Your task to perform on an android device: uninstall "Adobe Acrobat Reader" Image 0: 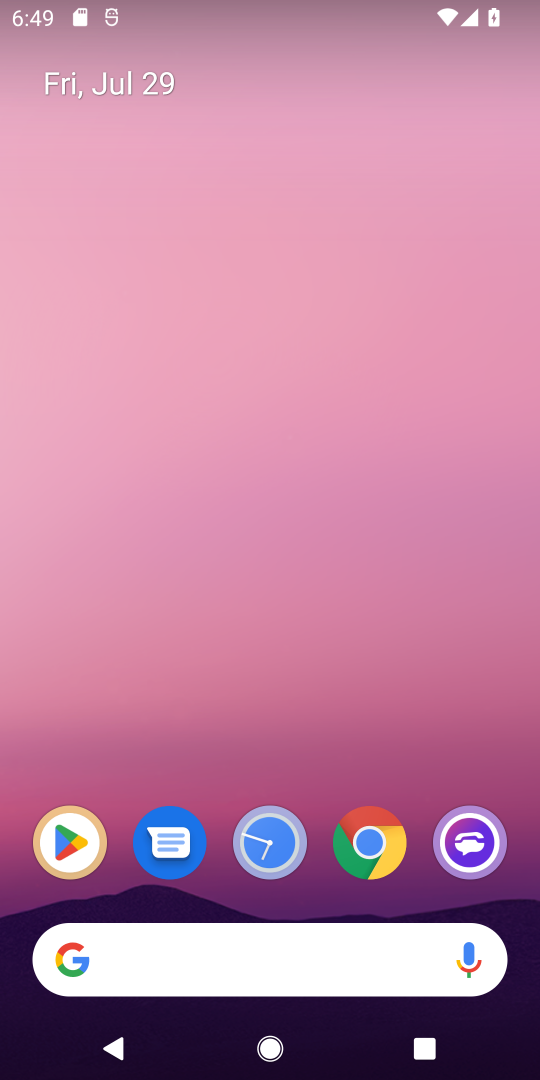
Step 0: drag from (332, 625) to (332, 43)
Your task to perform on an android device: uninstall "Adobe Acrobat Reader" Image 1: 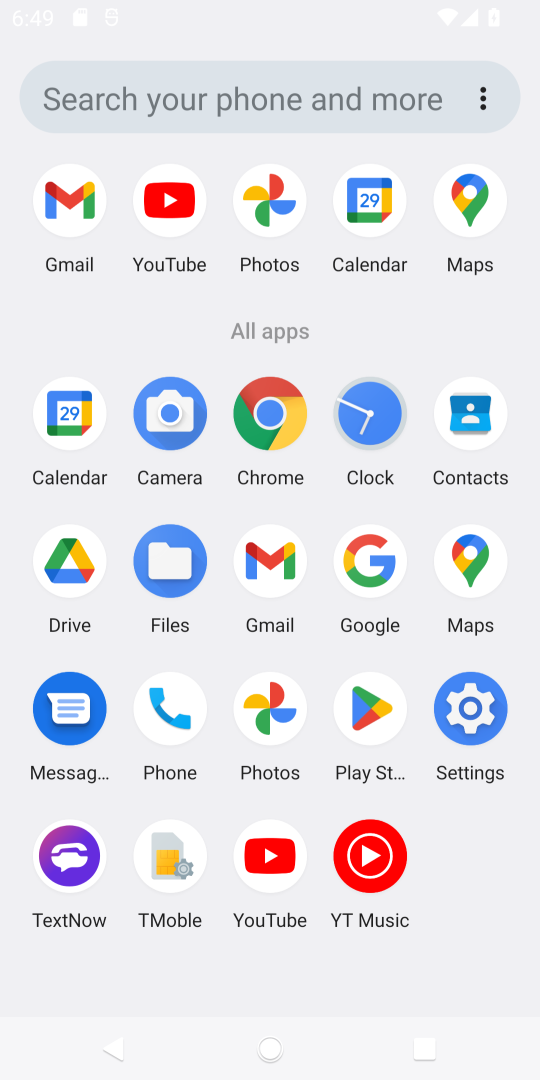
Step 1: drag from (324, 653) to (307, 91)
Your task to perform on an android device: uninstall "Adobe Acrobat Reader" Image 2: 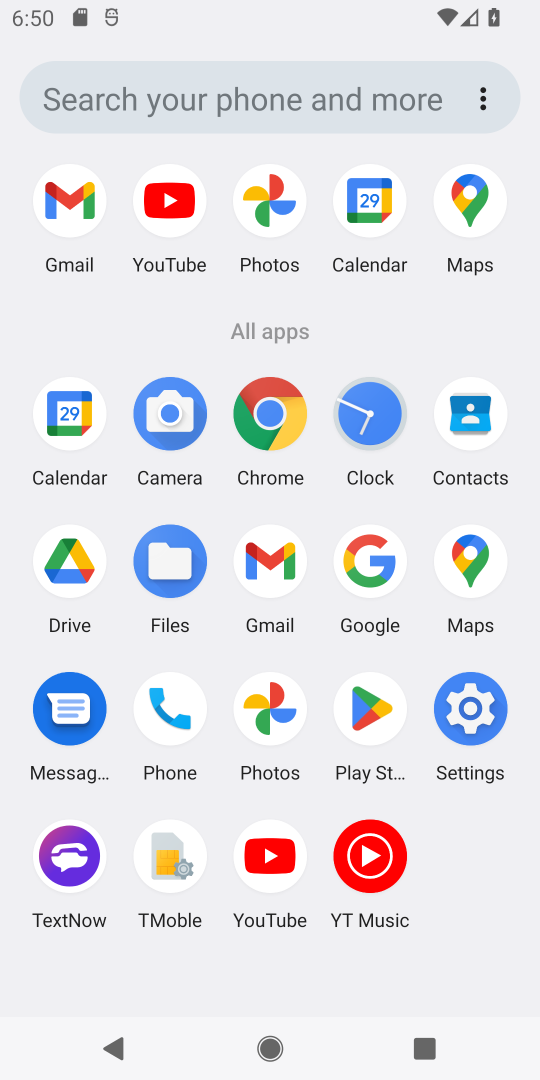
Step 2: click (373, 716)
Your task to perform on an android device: uninstall "Adobe Acrobat Reader" Image 3: 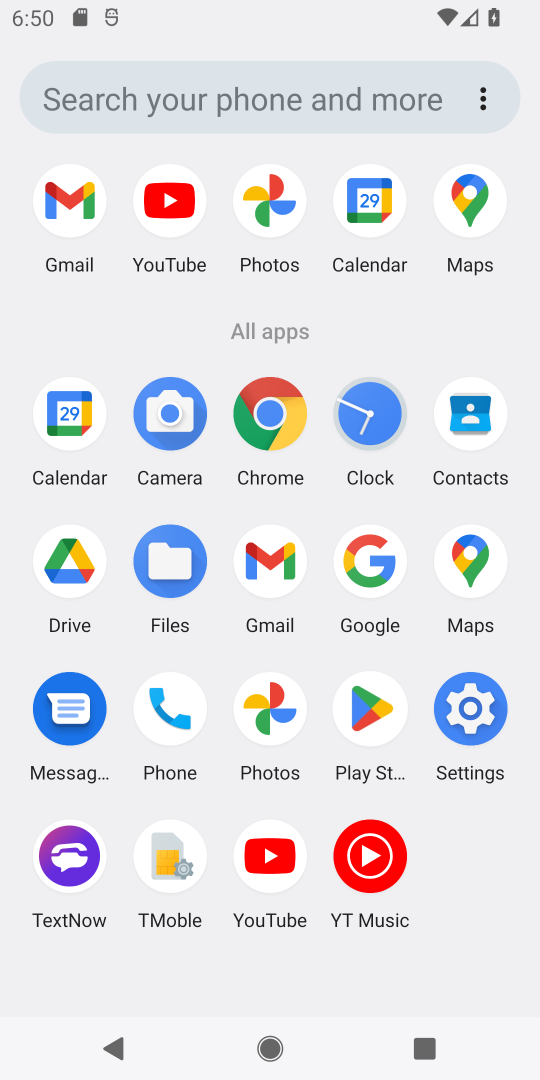
Step 3: click (373, 716)
Your task to perform on an android device: uninstall "Adobe Acrobat Reader" Image 4: 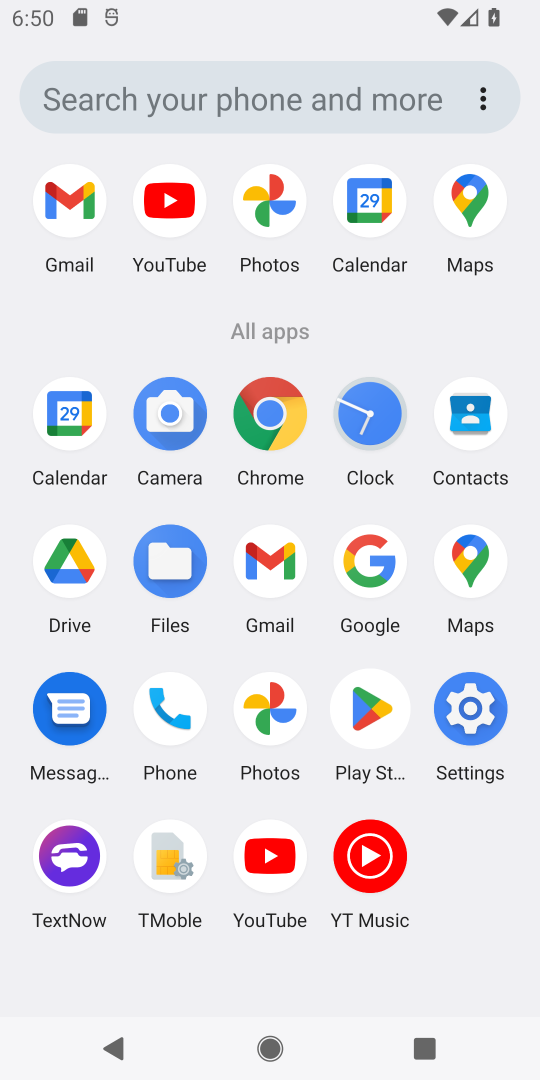
Step 4: click (373, 716)
Your task to perform on an android device: uninstall "Adobe Acrobat Reader" Image 5: 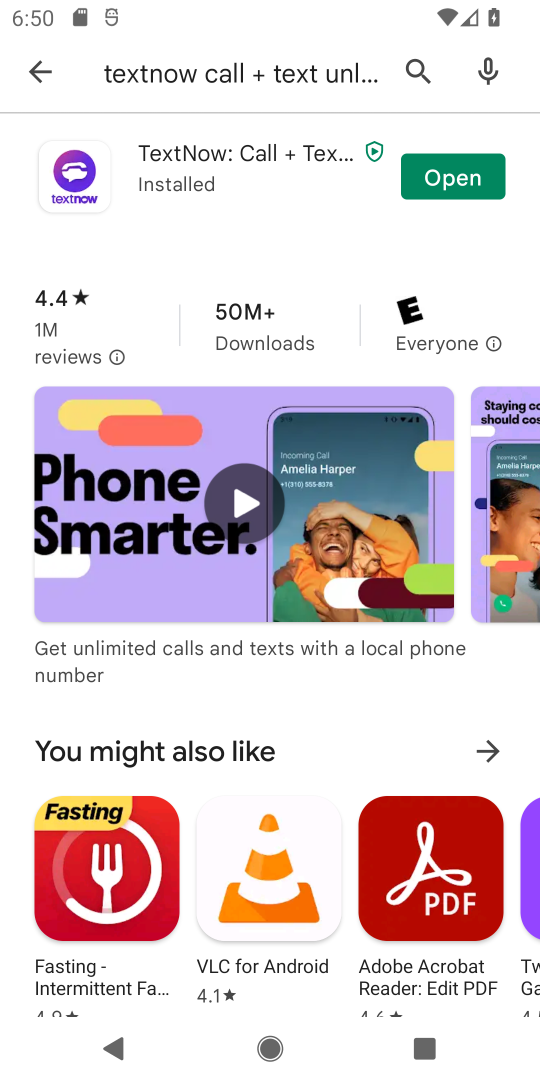
Step 5: click (50, 58)
Your task to perform on an android device: uninstall "Adobe Acrobat Reader" Image 6: 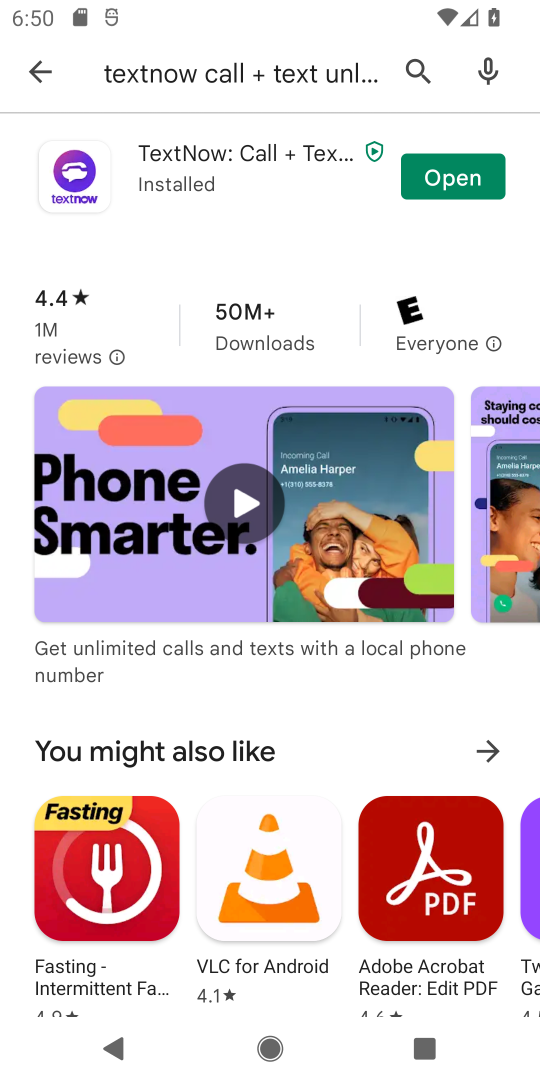
Step 6: click (45, 69)
Your task to perform on an android device: uninstall "Adobe Acrobat Reader" Image 7: 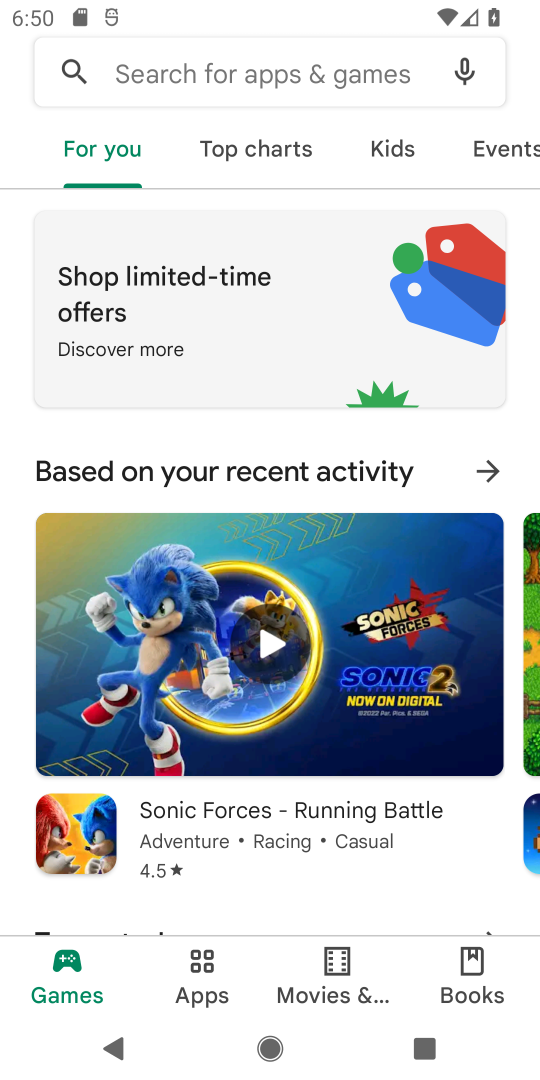
Step 7: click (143, 69)
Your task to perform on an android device: uninstall "Adobe Acrobat Reader" Image 8: 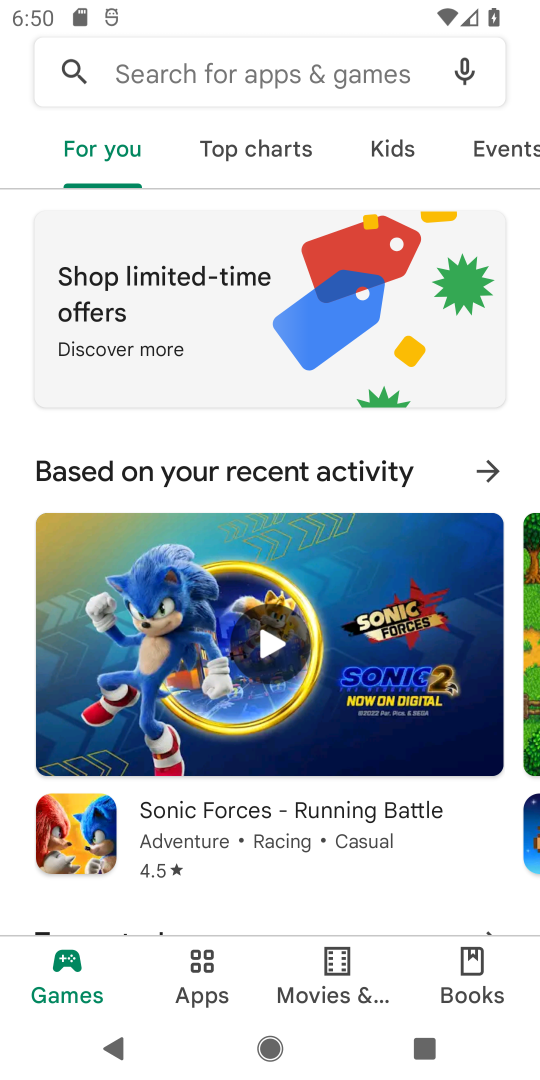
Step 8: click (145, 69)
Your task to perform on an android device: uninstall "Adobe Acrobat Reader" Image 9: 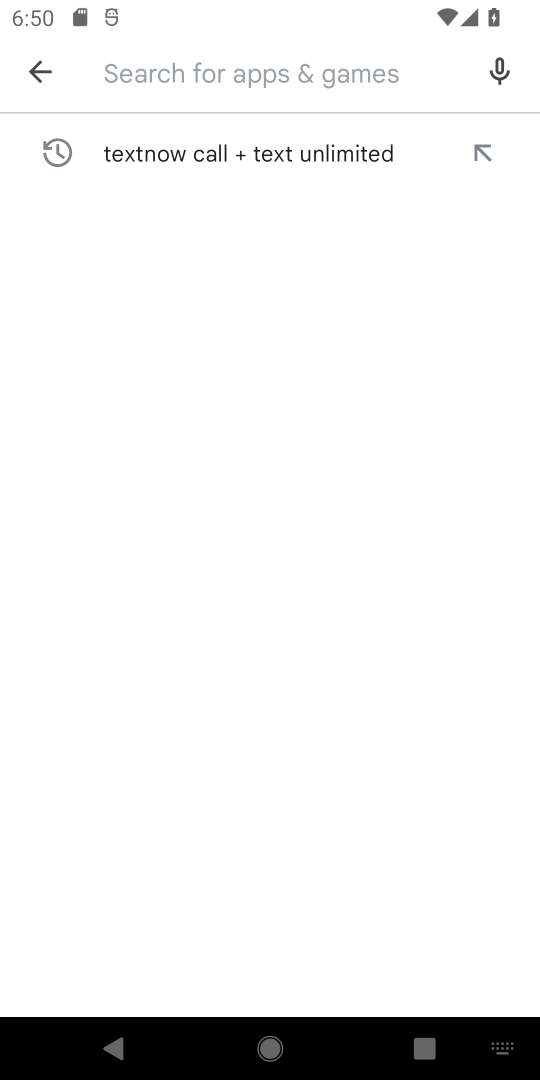
Step 9: type "Adobe Acrobat Reader"
Your task to perform on an android device: uninstall "Adobe Acrobat Reader" Image 10: 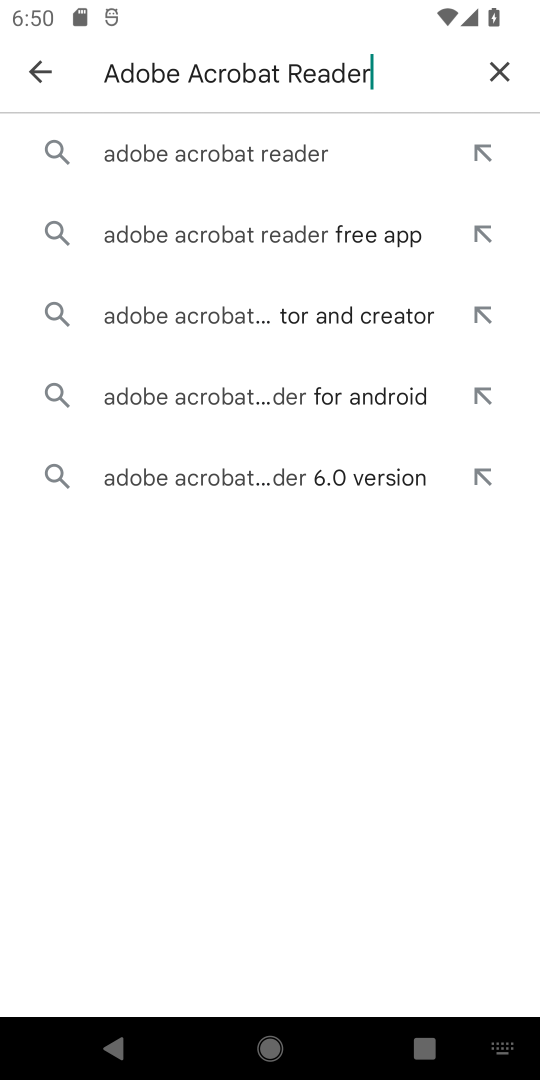
Step 10: click (246, 154)
Your task to perform on an android device: uninstall "Adobe Acrobat Reader" Image 11: 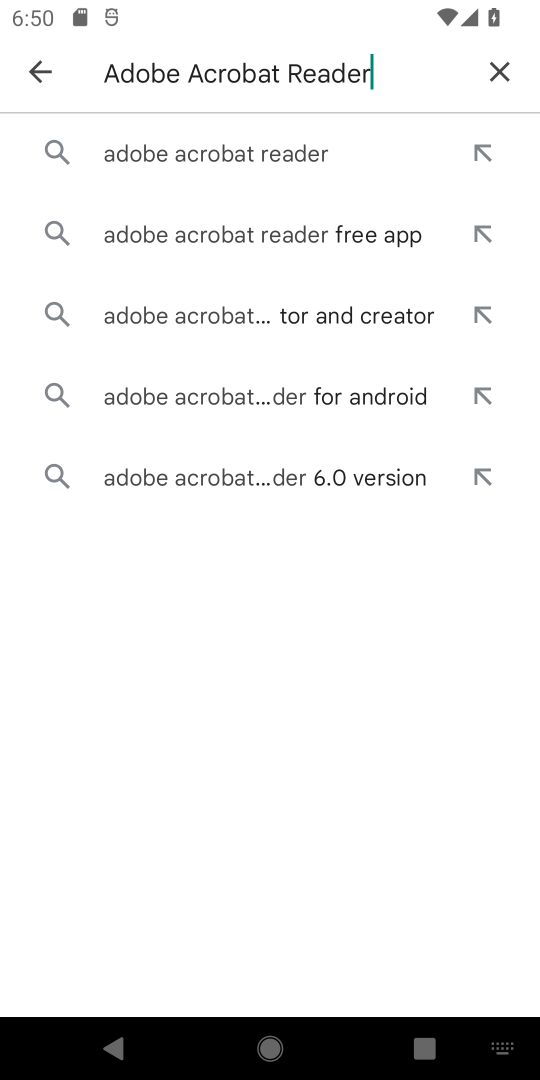
Step 11: click (244, 155)
Your task to perform on an android device: uninstall "Adobe Acrobat Reader" Image 12: 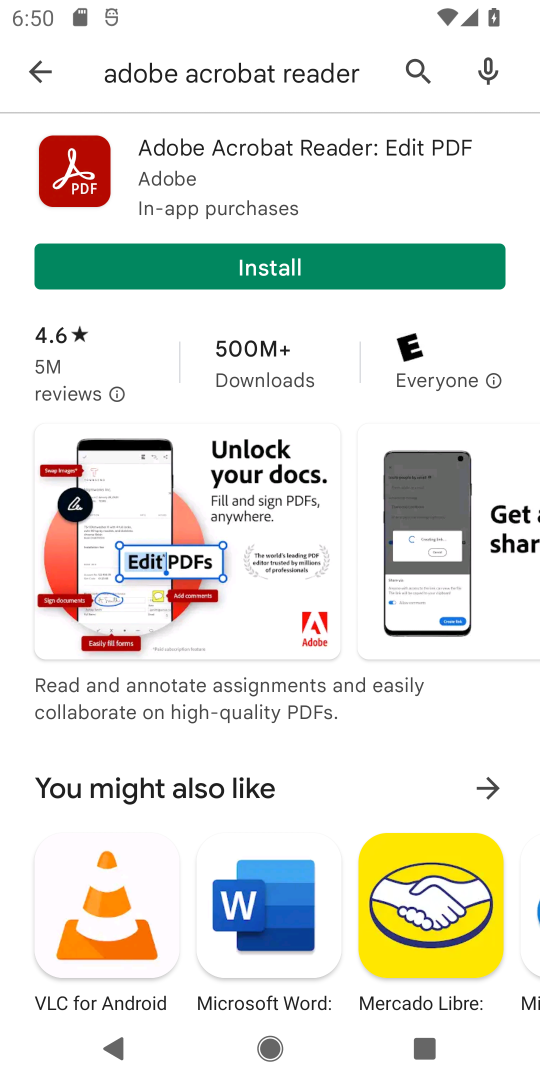
Step 12: click (288, 281)
Your task to perform on an android device: uninstall "Adobe Acrobat Reader" Image 13: 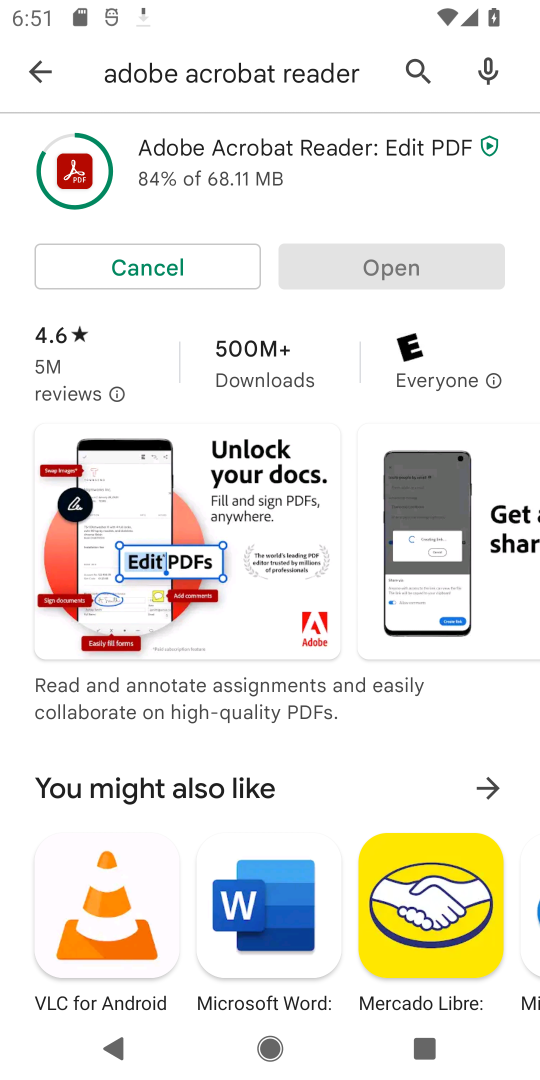
Step 13: click (277, 616)
Your task to perform on an android device: uninstall "Adobe Acrobat Reader" Image 14: 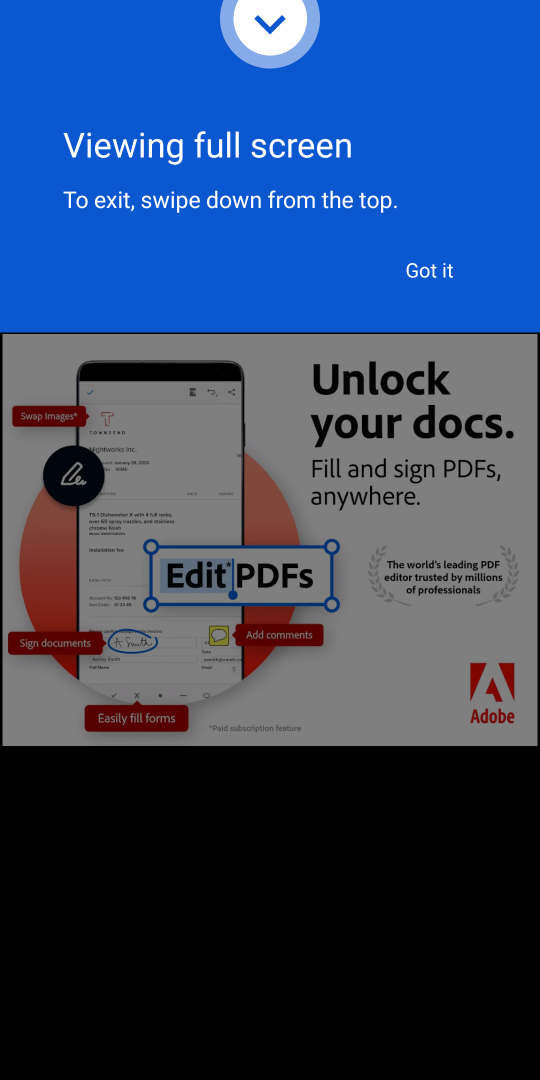
Step 14: click (441, 267)
Your task to perform on an android device: uninstall "Adobe Acrobat Reader" Image 15: 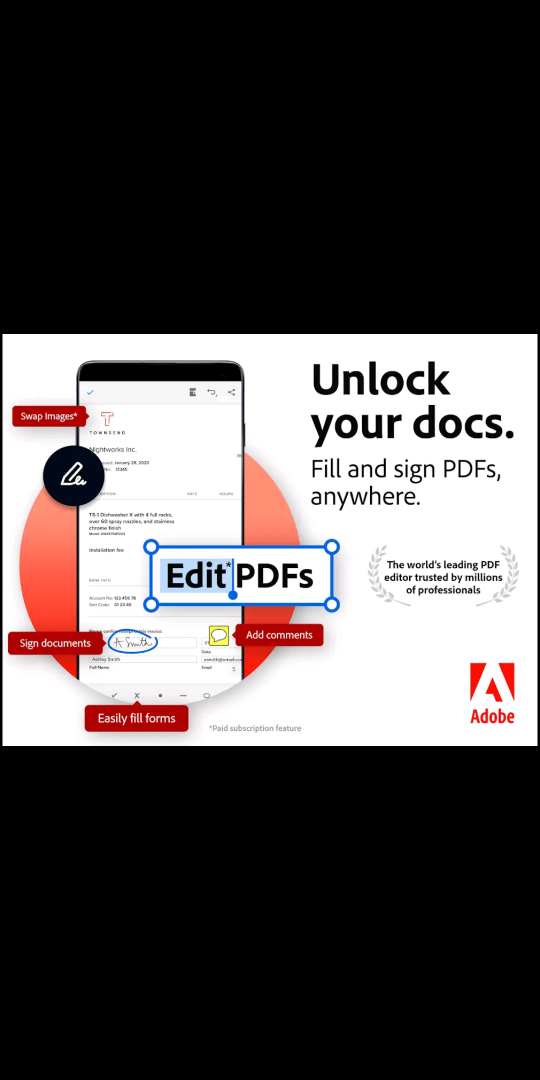
Step 15: click (333, 254)
Your task to perform on an android device: uninstall "Adobe Acrobat Reader" Image 16: 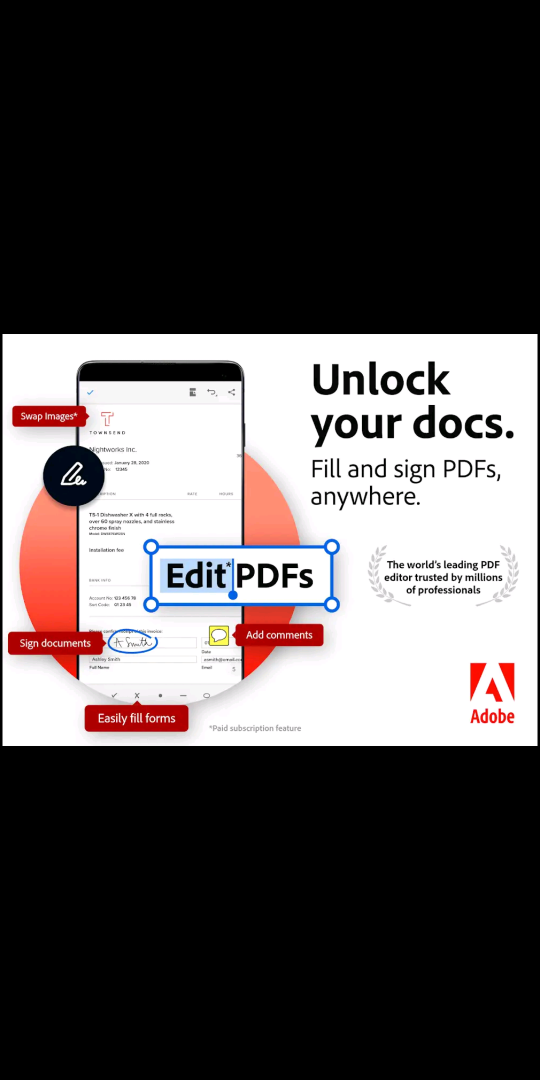
Step 16: task complete